Your task to perform on an android device: check google app version Image 0: 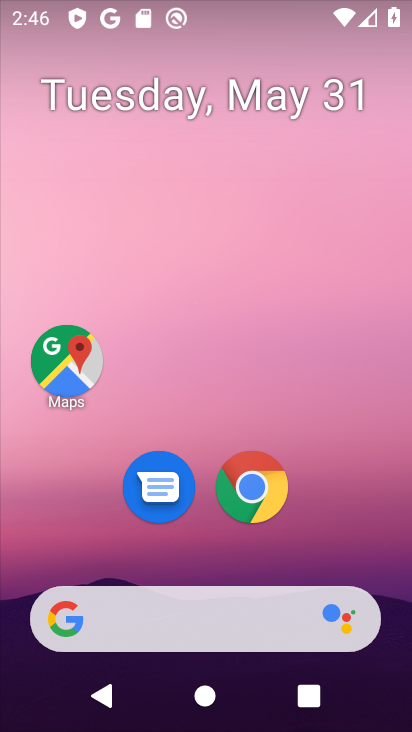
Step 0: drag from (119, 563) to (222, 193)
Your task to perform on an android device: check google app version Image 1: 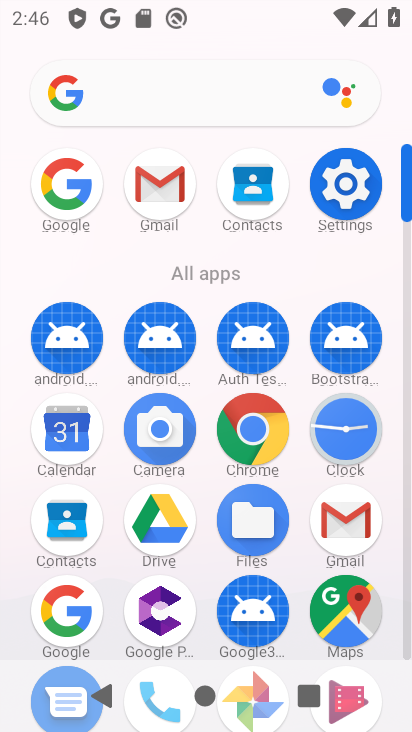
Step 1: drag from (217, 607) to (280, 312)
Your task to perform on an android device: check google app version Image 2: 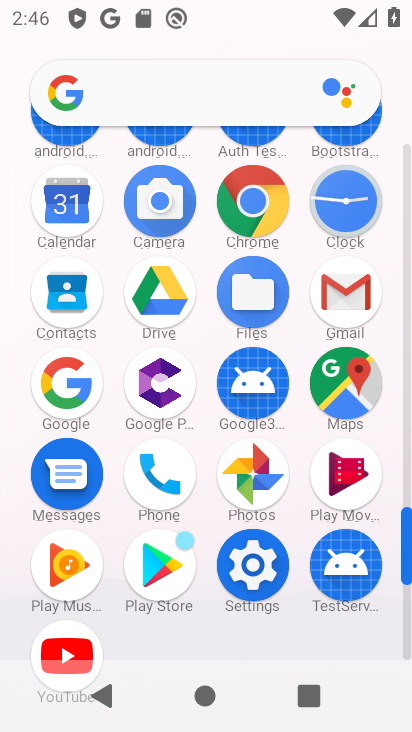
Step 2: click (251, 583)
Your task to perform on an android device: check google app version Image 3: 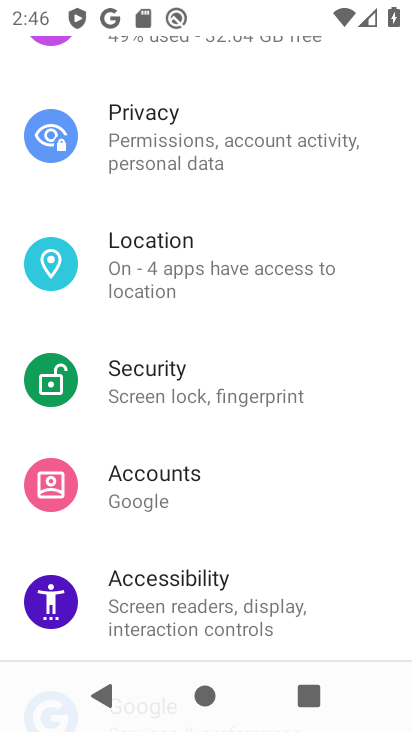
Step 3: drag from (254, 172) to (193, 486)
Your task to perform on an android device: check google app version Image 4: 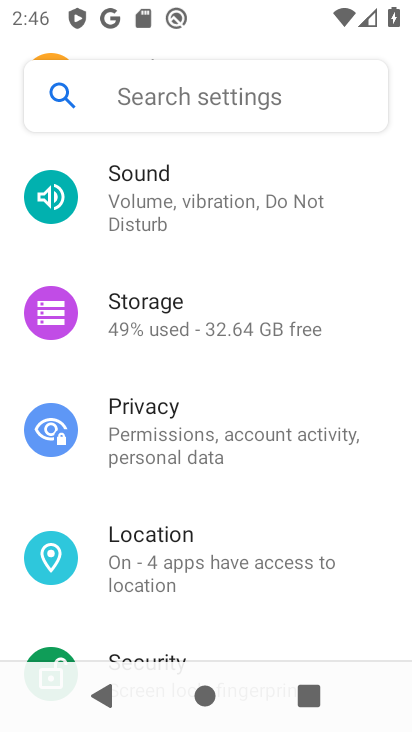
Step 4: drag from (238, 293) to (221, 596)
Your task to perform on an android device: check google app version Image 5: 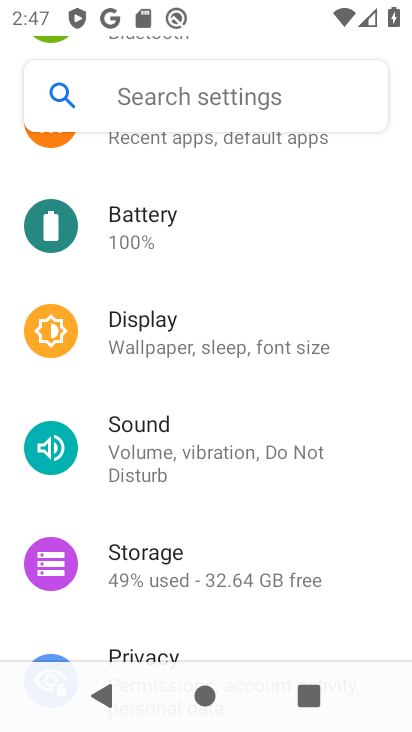
Step 5: drag from (284, 221) to (252, 516)
Your task to perform on an android device: check google app version Image 6: 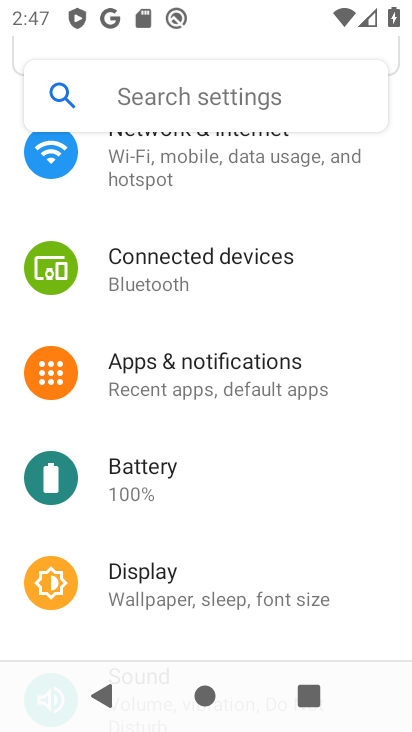
Step 6: click (218, 380)
Your task to perform on an android device: check google app version Image 7: 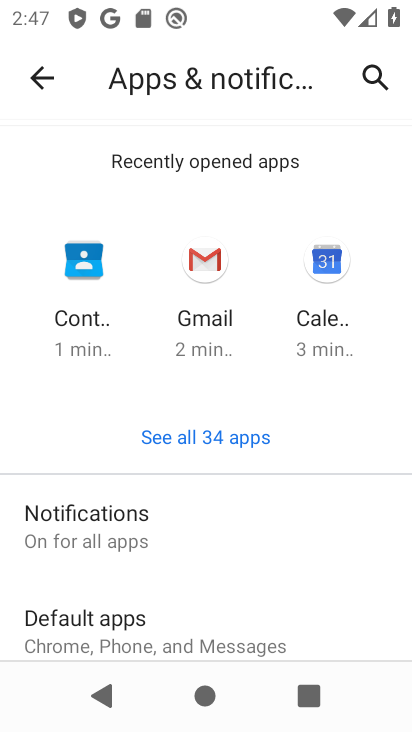
Step 7: click (241, 435)
Your task to perform on an android device: check google app version Image 8: 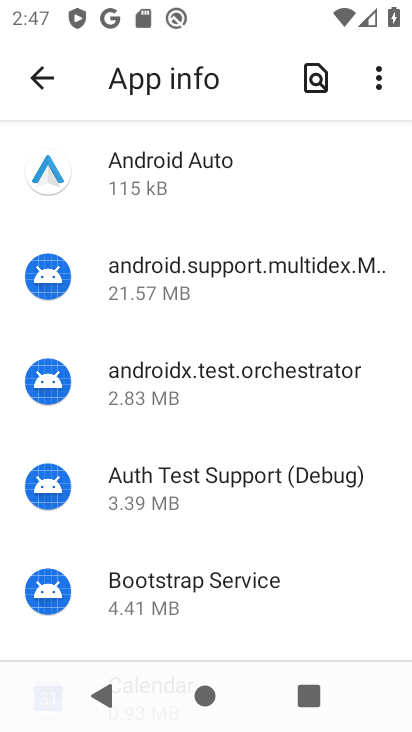
Step 8: drag from (202, 614) to (333, 50)
Your task to perform on an android device: check google app version Image 9: 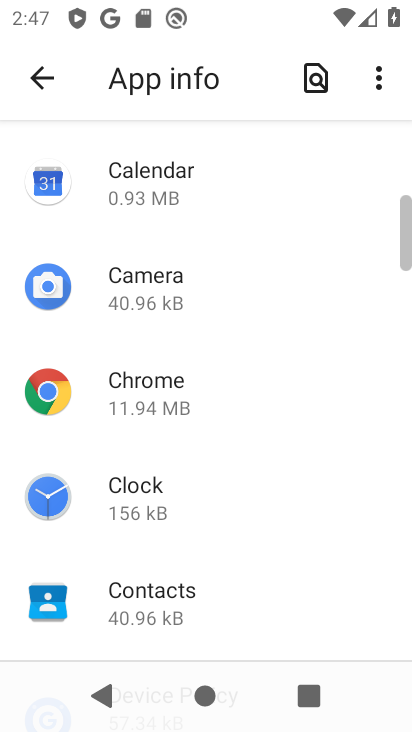
Step 9: drag from (156, 608) to (260, 140)
Your task to perform on an android device: check google app version Image 10: 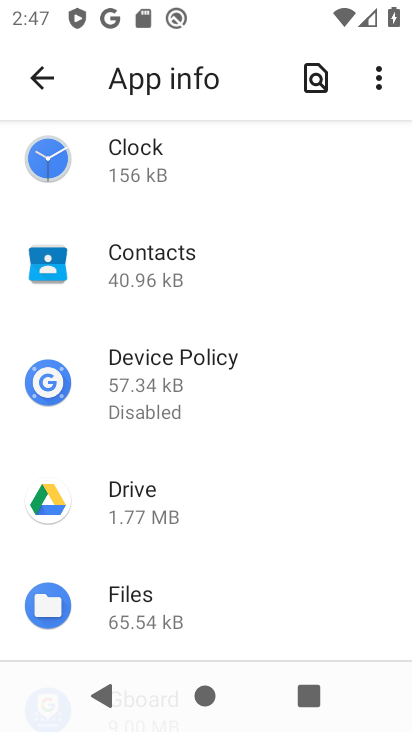
Step 10: drag from (197, 589) to (324, 167)
Your task to perform on an android device: check google app version Image 11: 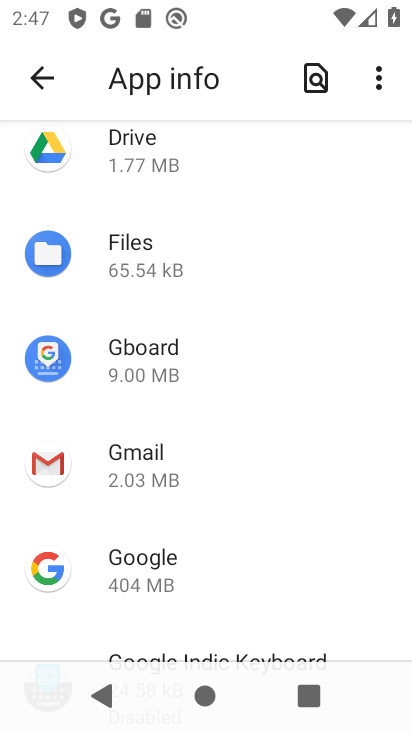
Step 11: click (200, 563)
Your task to perform on an android device: check google app version Image 12: 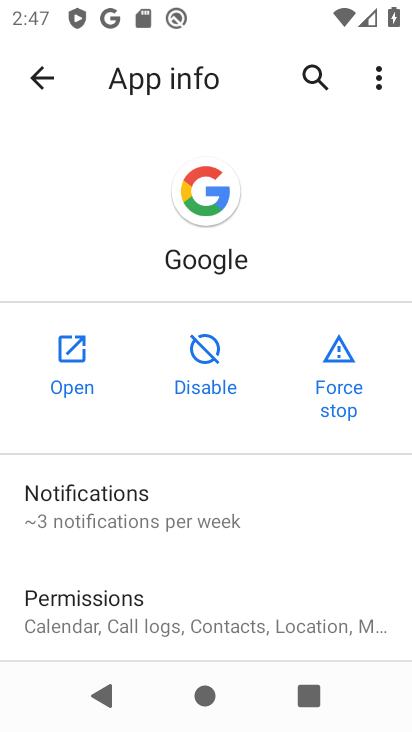
Step 12: drag from (161, 617) to (283, 96)
Your task to perform on an android device: check google app version Image 13: 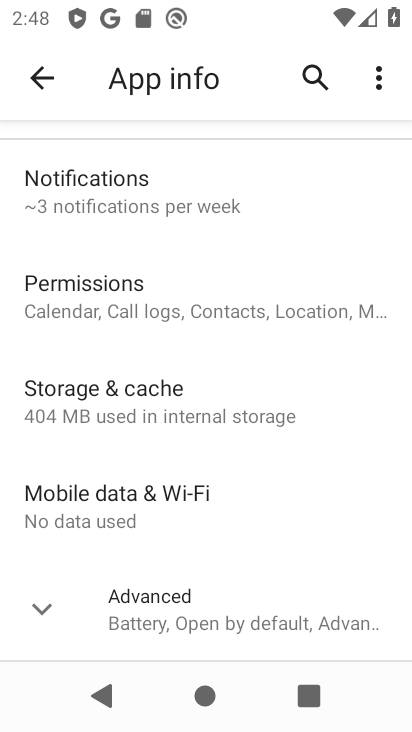
Step 13: click (193, 636)
Your task to perform on an android device: check google app version Image 14: 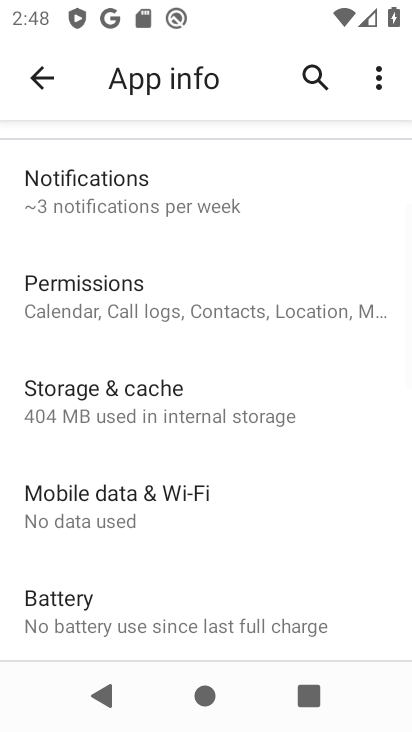
Step 14: task complete